Your task to perform on an android device: Open the stopwatch Image 0: 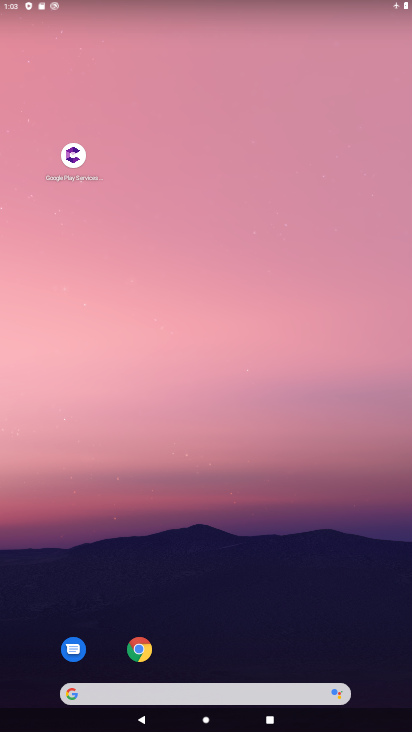
Step 0: drag from (181, 691) to (323, 143)
Your task to perform on an android device: Open the stopwatch Image 1: 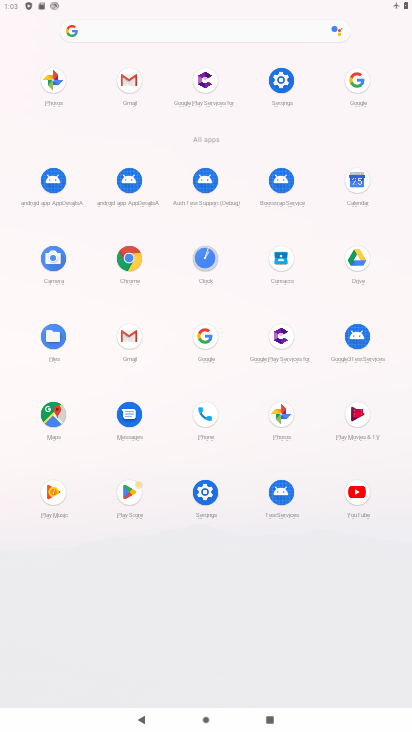
Step 1: click (206, 258)
Your task to perform on an android device: Open the stopwatch Image 2: 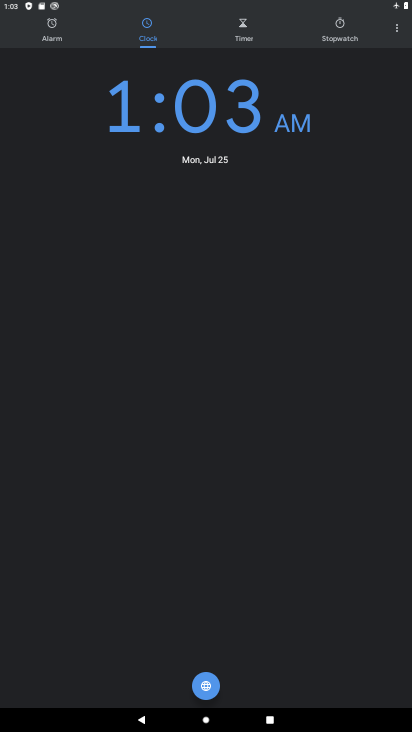
Step 2: click (343, 26)
Your task to perform on an android device: Open the stopwatch Image 3: 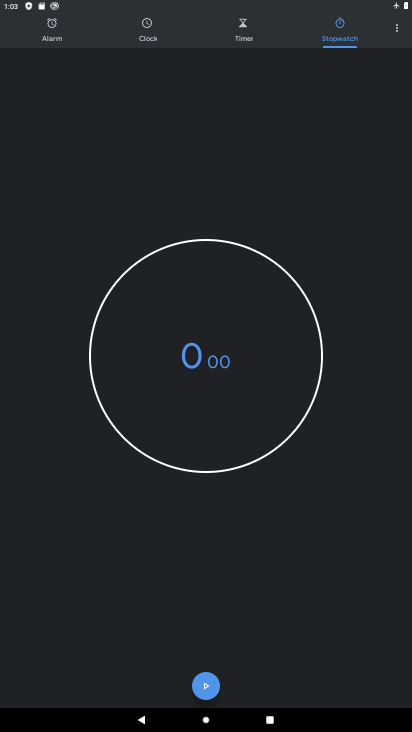
Step 3: task complete